Your task to perform on an android device: toggle notifications settings in the gmail app Image 0: 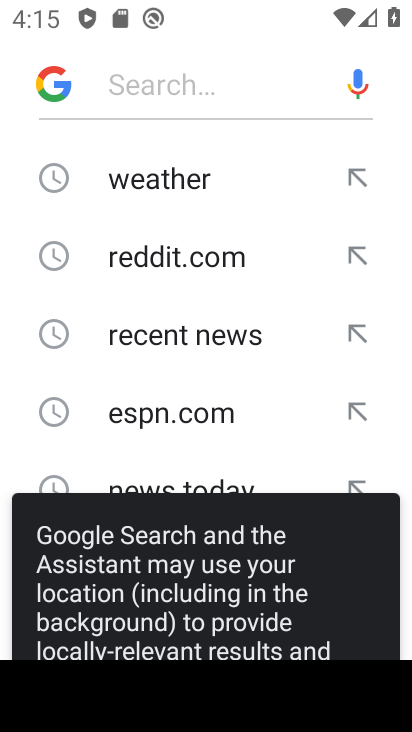
Step 0: press home button
Your task to perform on an android device: toggle notifications settings in the gmail app Image 1: 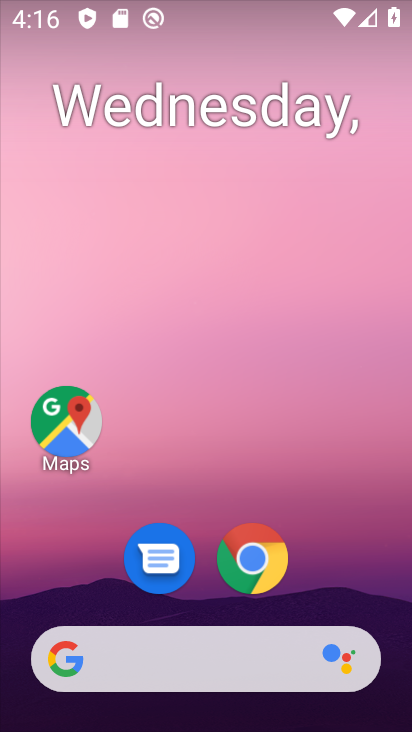
Step 1: drag from (334, 529) to (347, 175)
Your task to perform on an android device: toggle notifications settings in the gmail app Image 2: 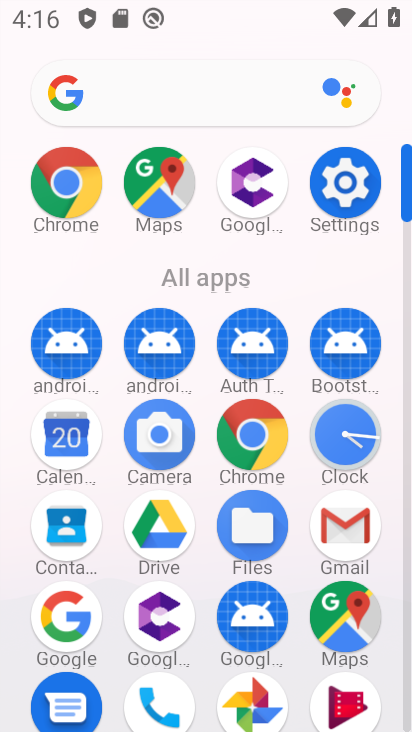
Step 2: click (358, 535)
Your task to perform on an android device: toggle notifications settings in the gmail app Image 3: 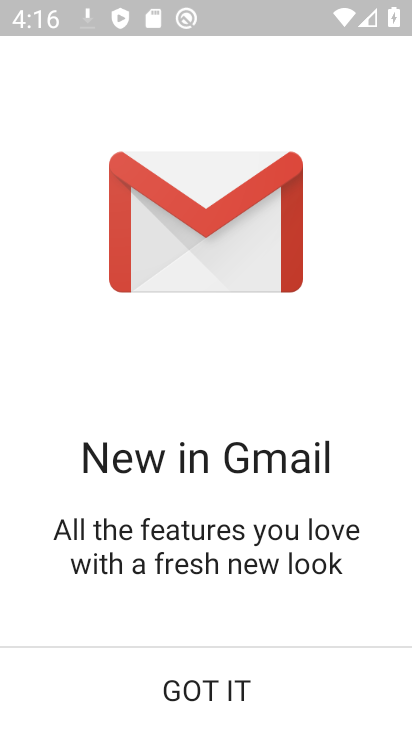
Step 3: click (257, 679)
Your task to perform on an android device: toggle notifications settings in the gmail app Image 4: 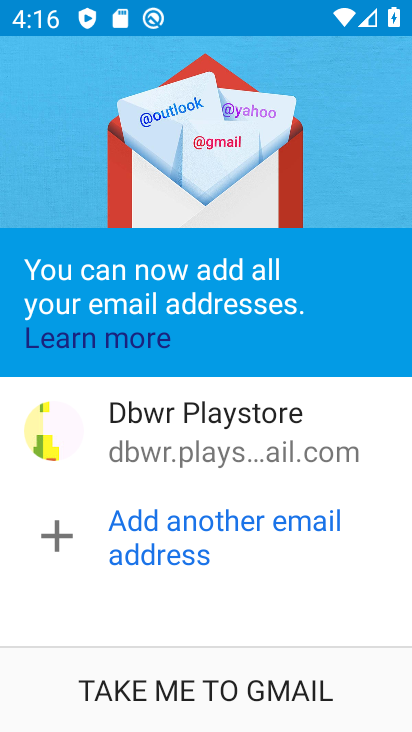
Step 4: click (256, 679)
Your task to perform on an android device: toggle notifications settings in the gmail app Image 5: 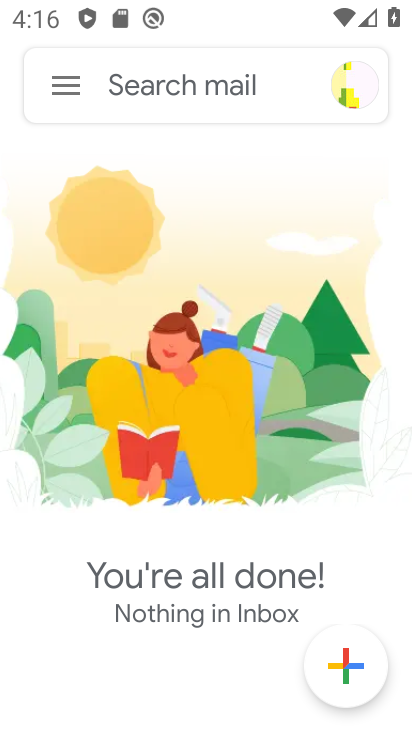
Step 5: click (68, 99)
Your task to perform on an android device: toggle notifications settings in the gmail app Image 6: 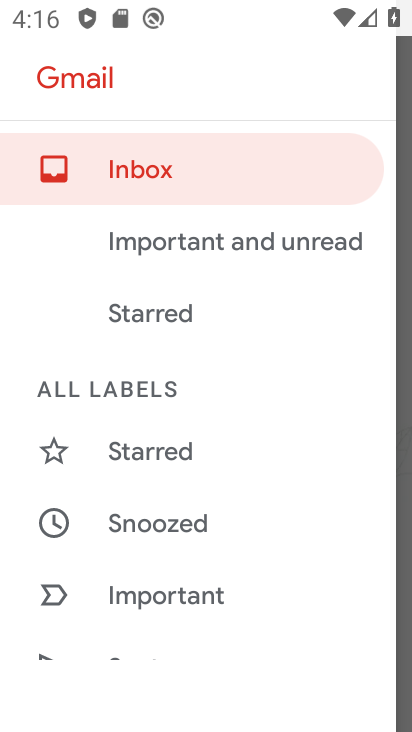
Step 6: drag from (287, 532) to (301, 372)
Your task to perform on an android device: toggle notifications settings in the gmail app Image 7: 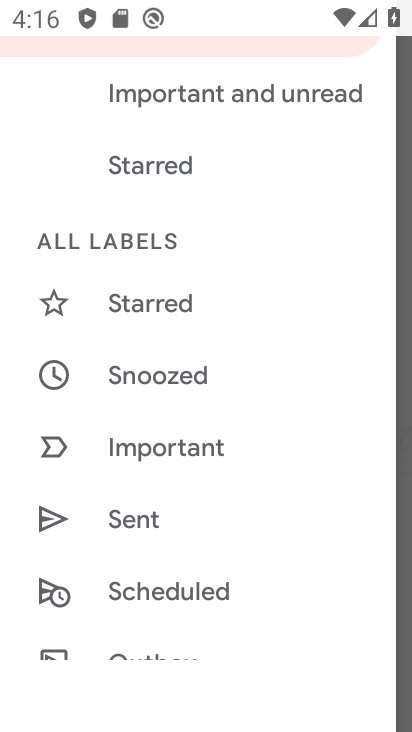
Step 7: drag from (264, 549) to (284, 400)
Your task to perform on an android device: toggle notifications settings in the gmail app Image 8: 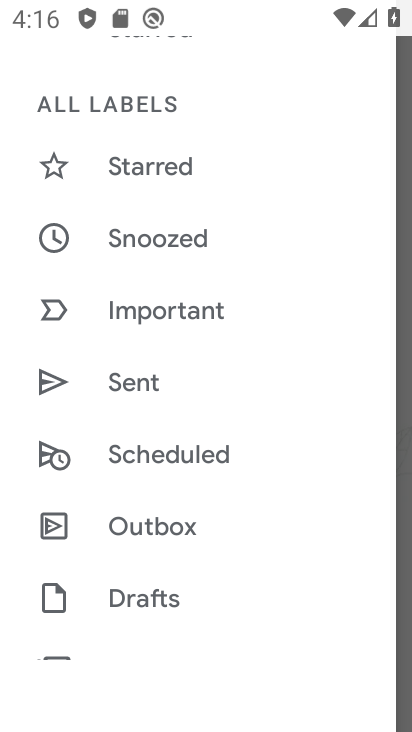
Step 8: drag from (265, 574) to (309, 408)
Your task to perform on an android device: toggle notifications settings in the gmail app Image 9: 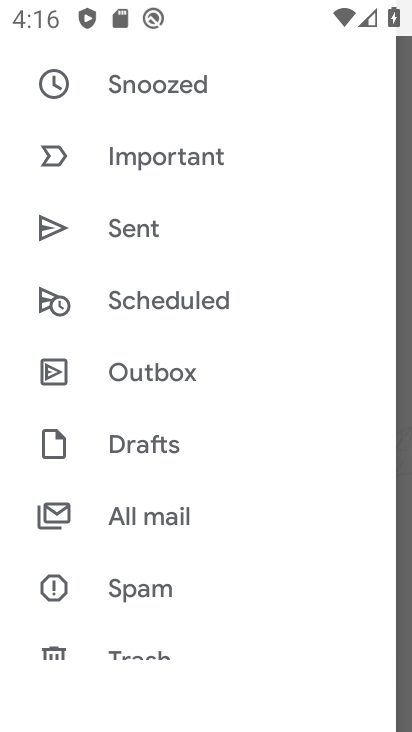
Step 9: drag from (306, 556) to (310, 409)
Your task to perform on an android device: toggle notifications settings in the gmail app Image 10: 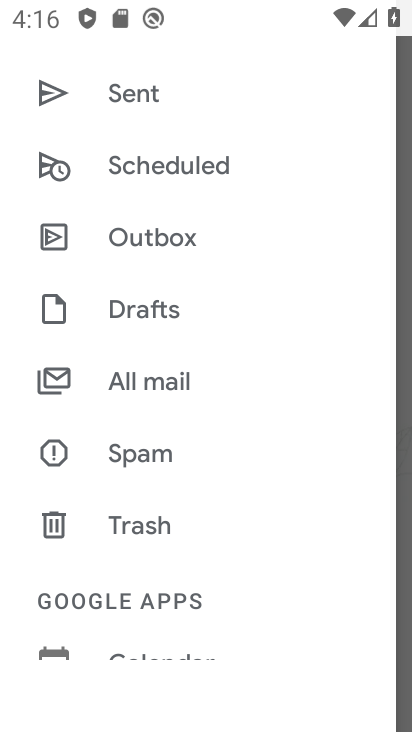
Step 10: drag from (279, 581) to (283, 444)
Your task to perform on an android device: toggle notifications settings in the gmail app Image 11: 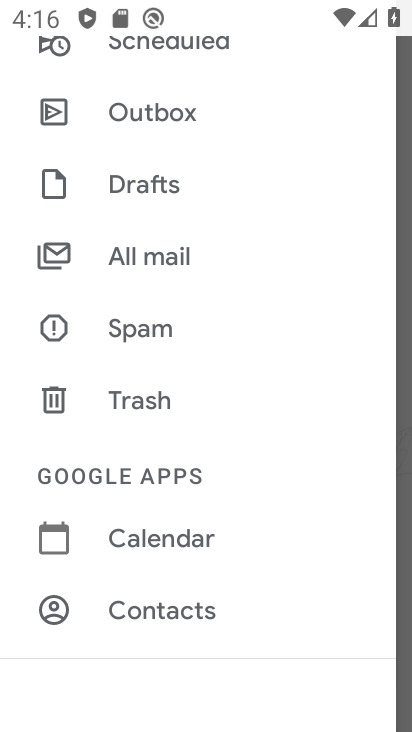
Step 11: drag from (285, 598) to (319, 420)
Your task to perform on an android device: toggle notifications settings in the gmail app Image 12: 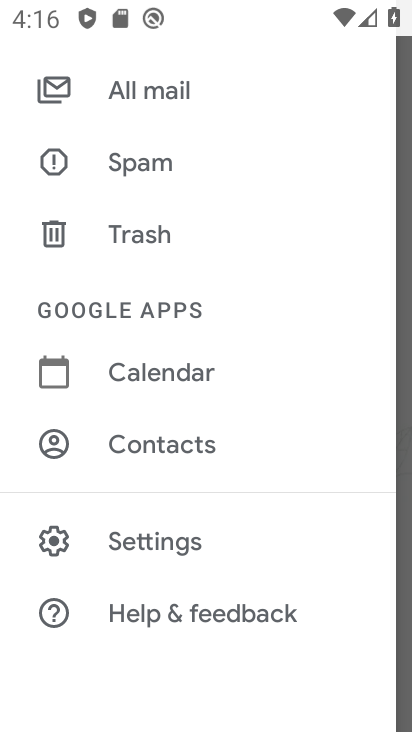
Step 12: click (180, 546)
Your task to perform on an android device: toggle notifications settings in the gmail app Image 13: 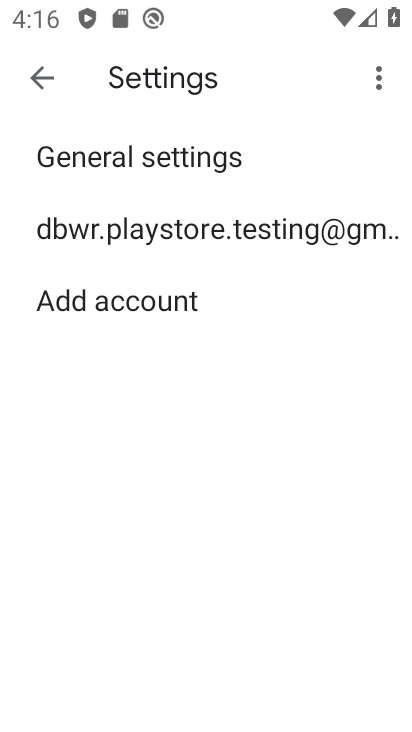
Step 13: click (240, 238)
Your task to perform on an android device: toggle notifications settings in the gmail app Image 14: 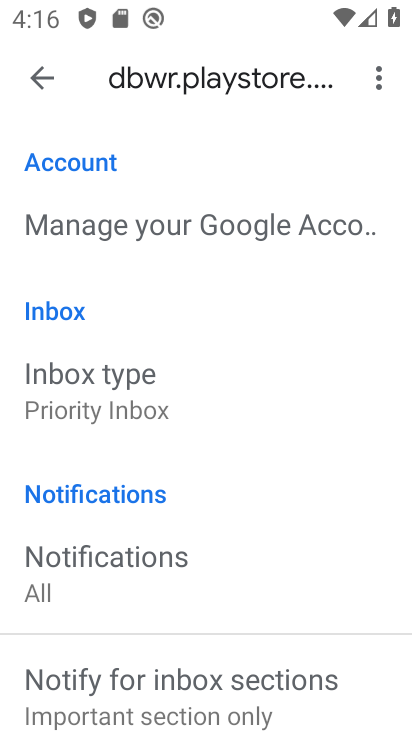
Step 14: drag from (259, 572) to (293, 412)
Your task to perform on an android device: toggle notifications settings in the gmail app Image 15: 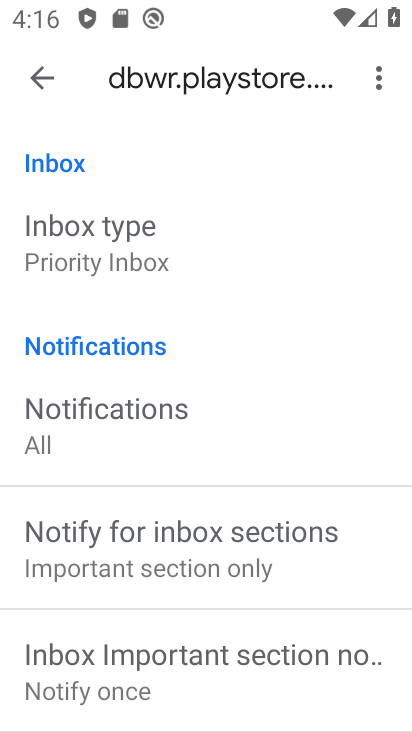
Step 15: drag from (302, 586) to (340, 407)
Your task to perform on an android device: toggle notifications settings in the gmail app Image 16: 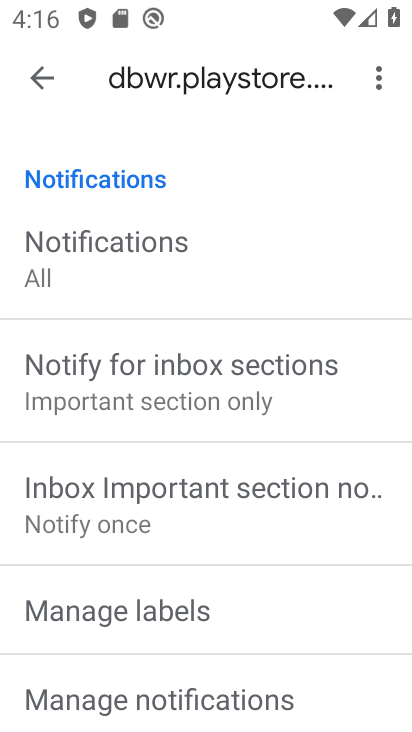
Step 16: drag from (309, 567) to (350, 404)
Your task to perform on an android device: toggle notifications settings in the gmail app Image 17: 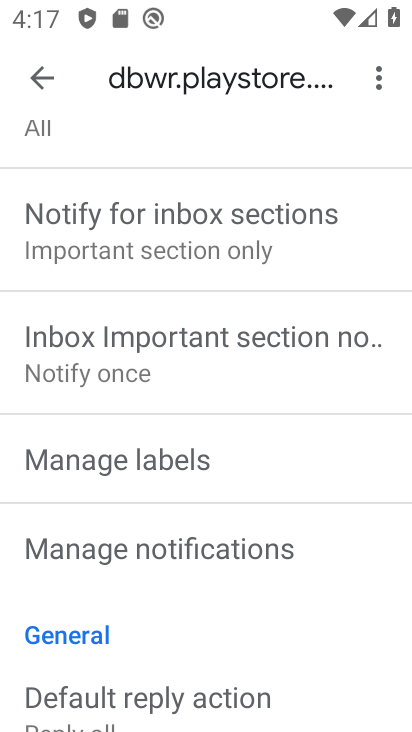
Step 17: drag from (296, 596) to (315, 459)
Your task to perform on an android device: toggle notifications settings in the gmail app Image 18: 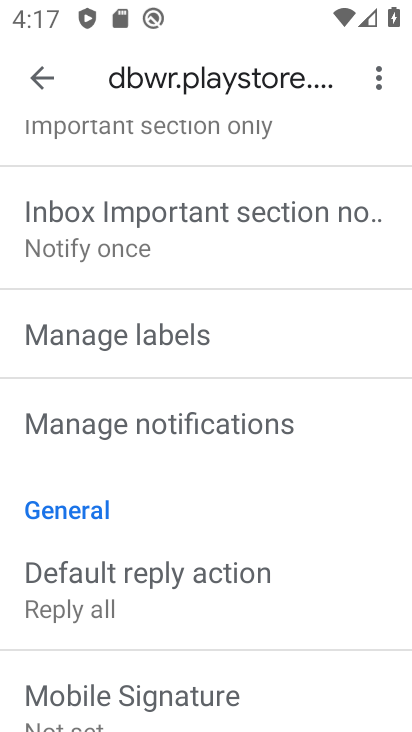
Step 18: click (285, 412)
Your task to perform on an android device: toggle notifications settings in the gmail app Image 19: 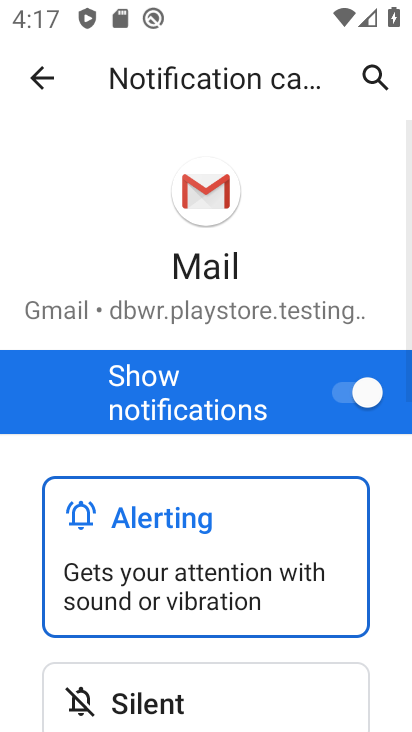
Step 19: click (356, 397)
Your task to perform on an android device: toggle notifications settings in the gmail app Image 20: 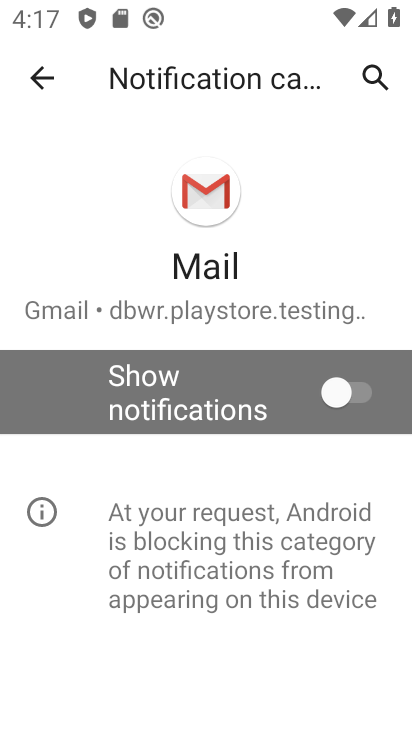
Step 20: task complete